Your task to perform on an android device: change the clock display to analog Image 0: 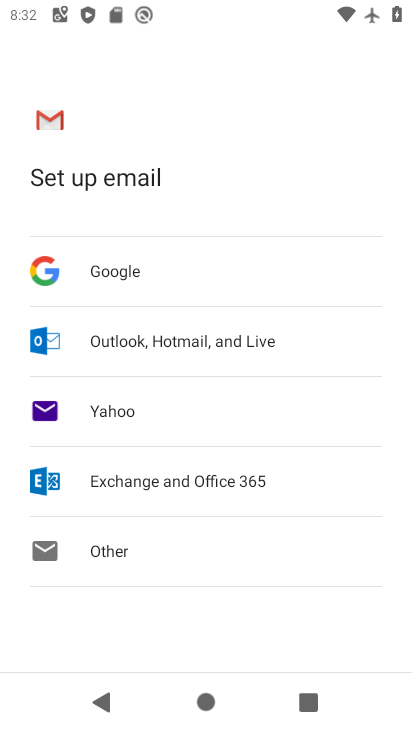
Step 0: press home button
Your task to perform on an android device: change the clock display to analog Image 1: 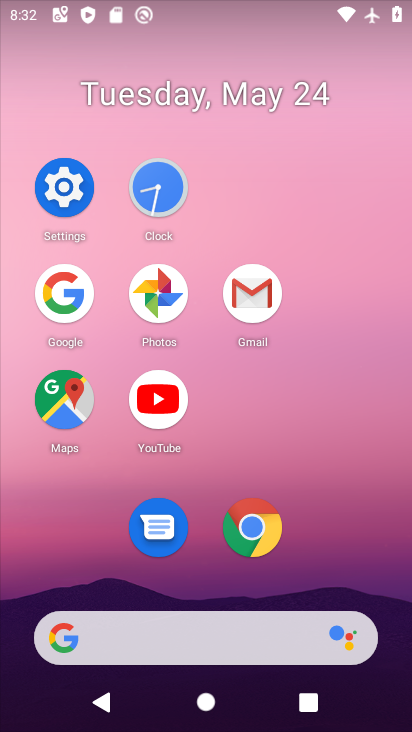
Step 1: click (149, 188)
Your task to perform on an android device: change the clock display to analog Image 2: 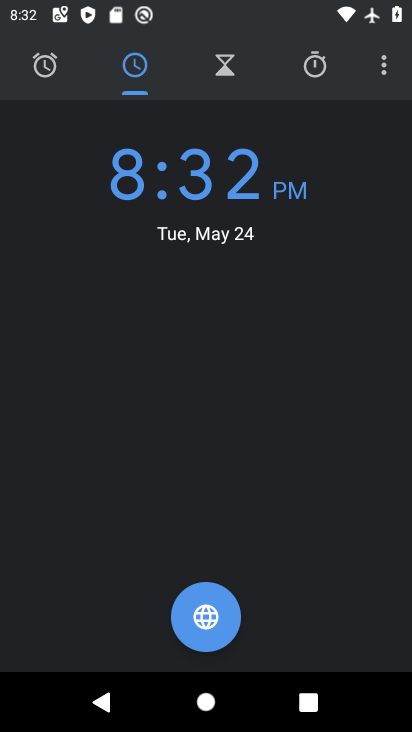
Step 2: click (392, 79)
Your task to perform on an android device: change the clock display to analog Image 3: 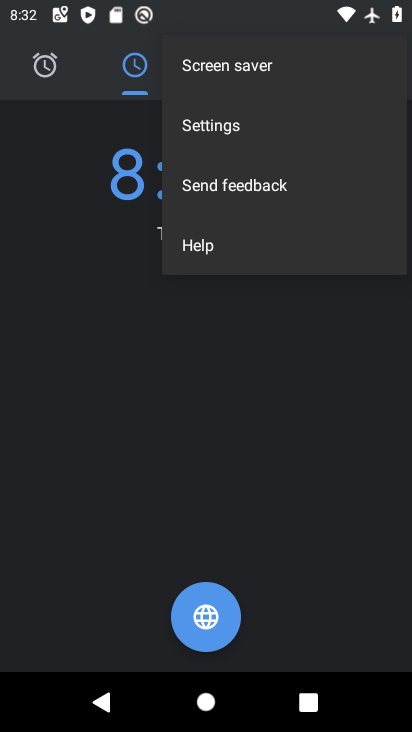
Step 3: click (218, 112)
Your task to perform on an android device: change the clock display to analog Image 4: 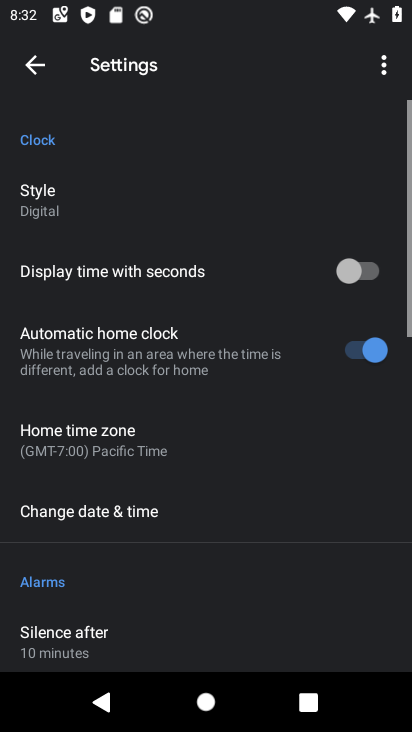
Step 4: click (48, 207)
Your task to perform on an android device: change the clock display to analog Image 5: 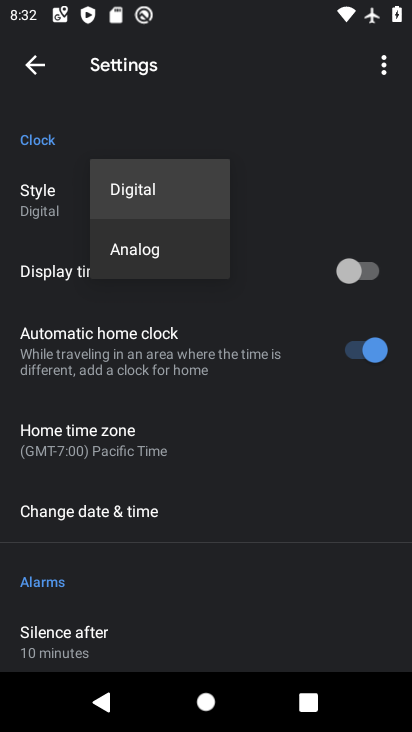
Step 5: click (152, 258)
Your task to perform on an android device: change the clock display to analog Image 6: 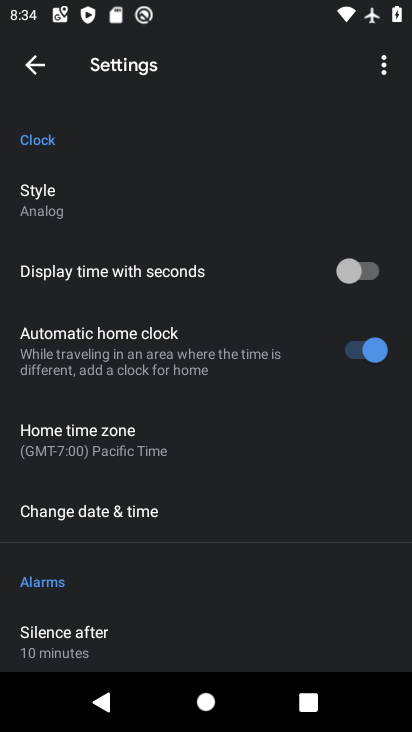
Step 6: task complete